Your task to perform on an android device: turn off airplane mode Image 0: 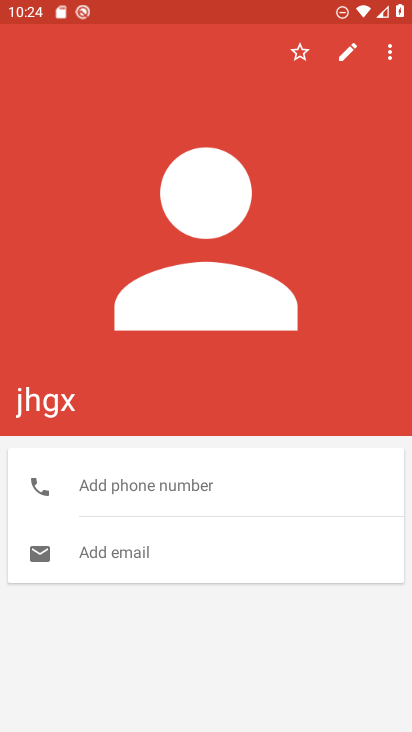
Step 0: press home button
Your task to perform on an android device: turn off airplane mode Image 1: 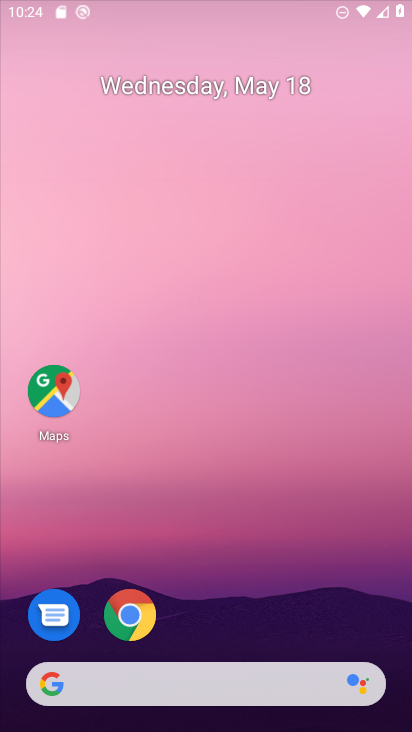
Step 1: drag from (242, 615) to (225, 119)
Your task to perform on an android device: turn off airplane mode Image 2: 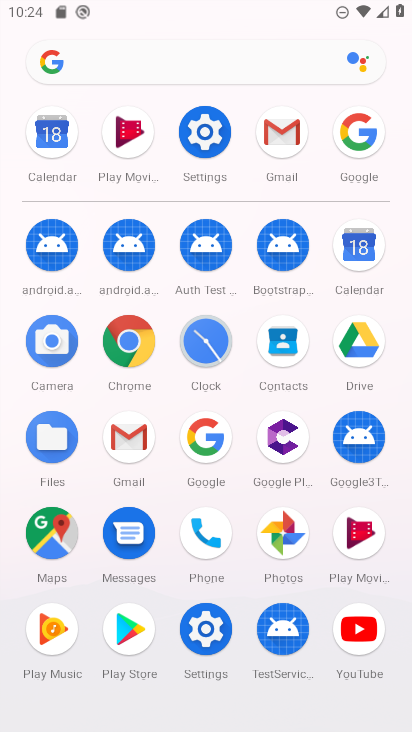
Step 2: click (217, 126)
Your task to perform on an android device: turn off airplane mode Image 3: 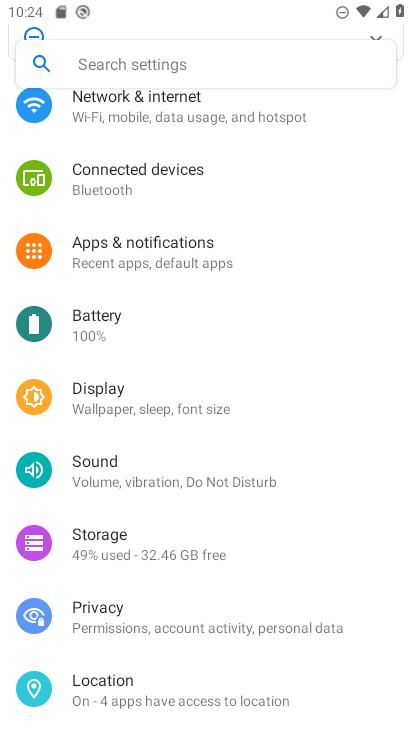
Step 3: click (169, 112)
Your task to perform on an android device: turn off airplane mode Image 4: 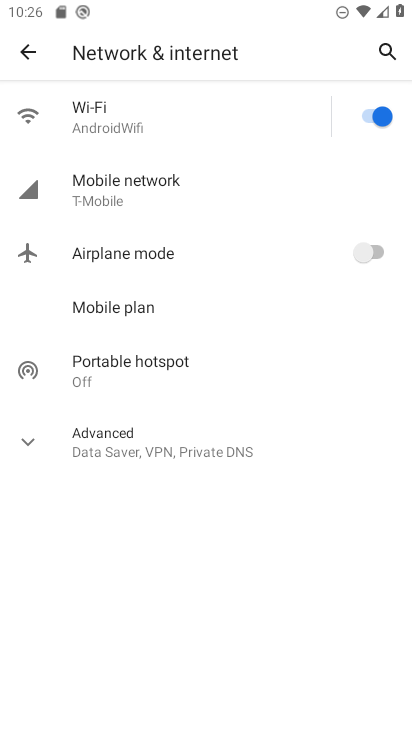
Step 4: task complete